Your task to perform on an android device: Show me productivity apps on the Play Store Image 0: 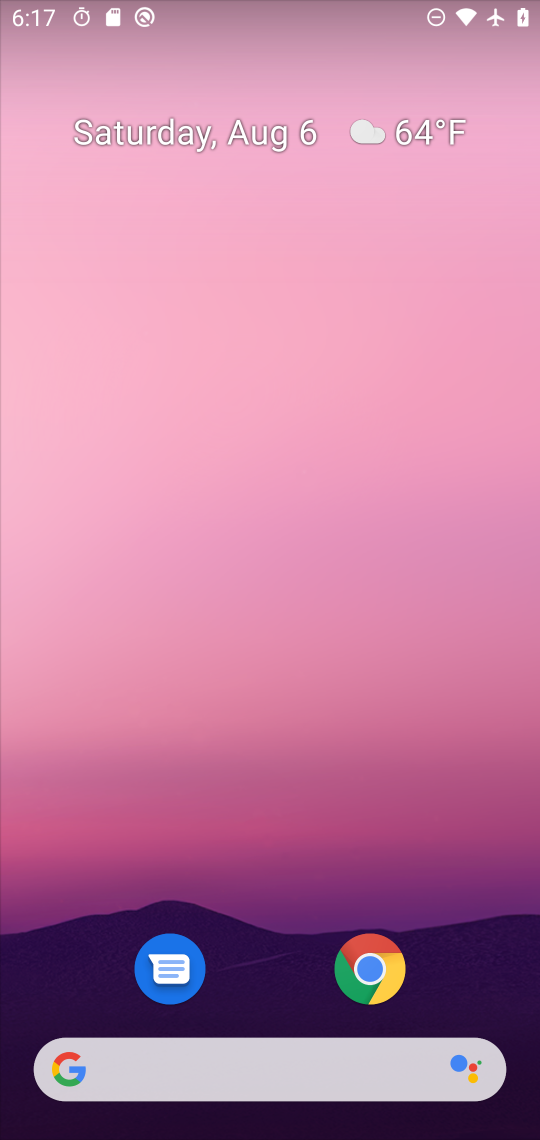
Step 0: drag from (314, 881) to (446, 106)
Your task to perform on an android device: Show me productivity apps on the Play Store Image 1: 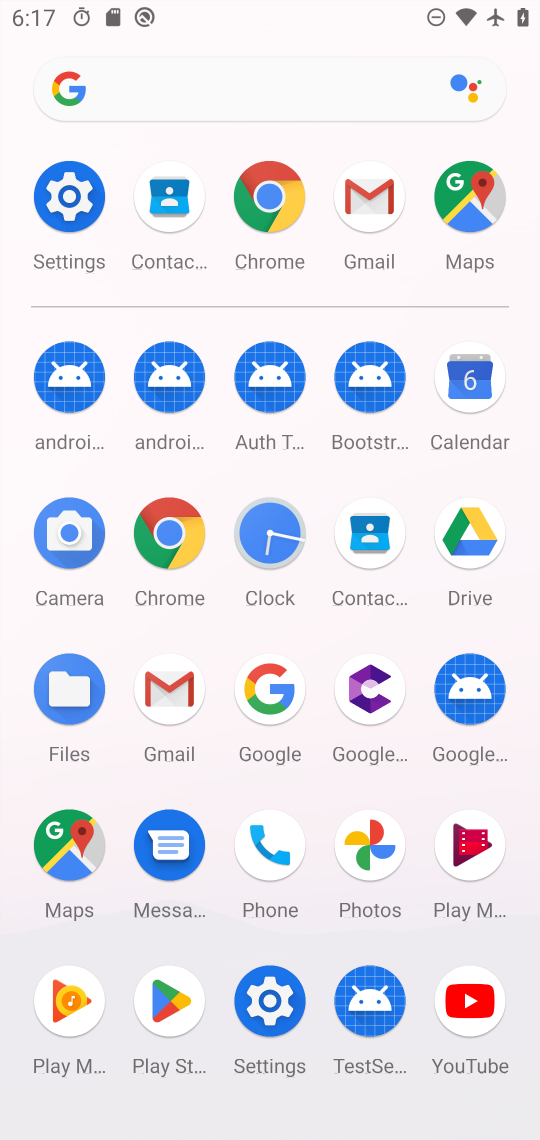
Step 1: click (170, 1002)
Your task to perform on an android device: Show me productivity apps on the Play Store Image 2: 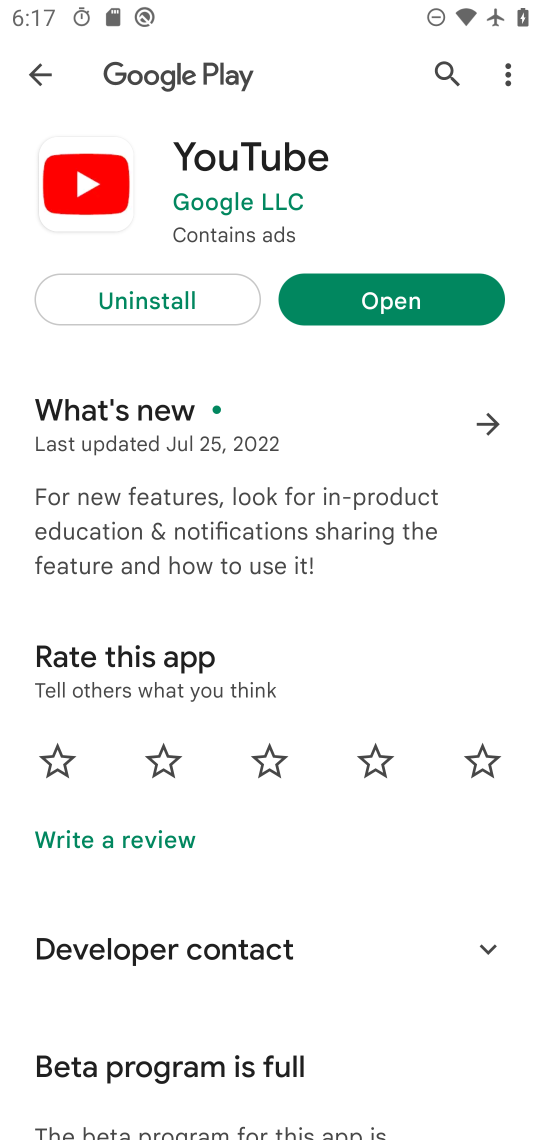
Step 2: click (54, 72)
Your task to perform on an android device: Show me productivity apps on the Play Store Image 3: 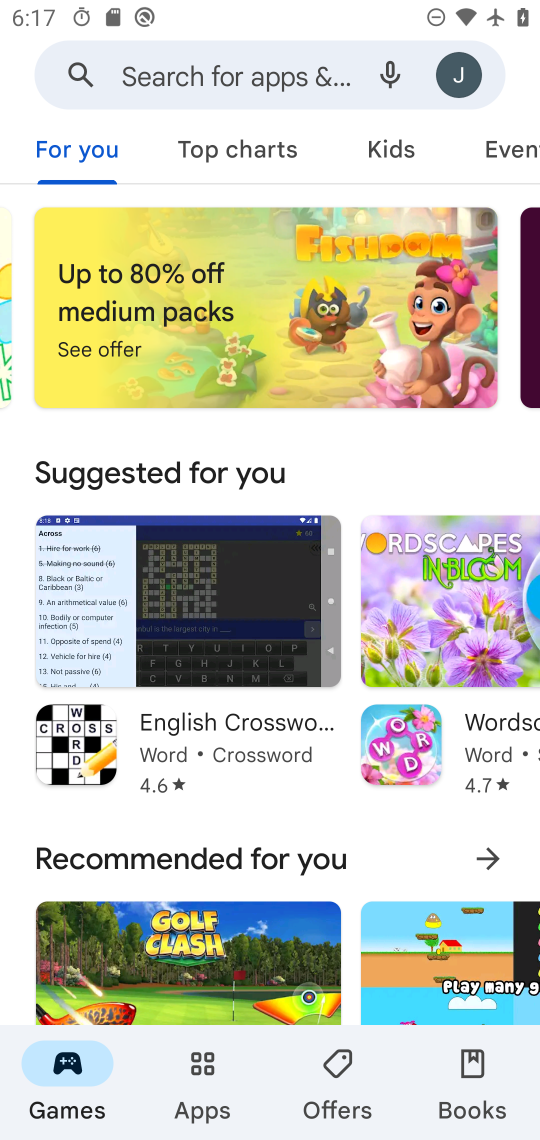
Step 3: click (213, 1063)
Your task to perform on an android device: Show me productivity apps on the Play Store Image 4: 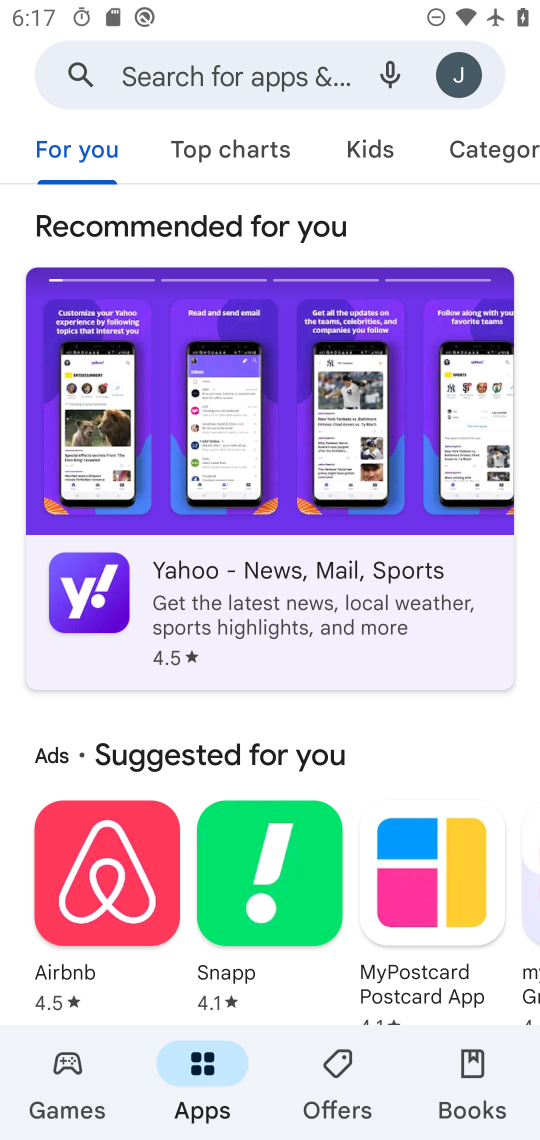
Step 4: click (475, 143)
Your task to perform on an android device: Show me productivity apps on the Play Store Image 5: 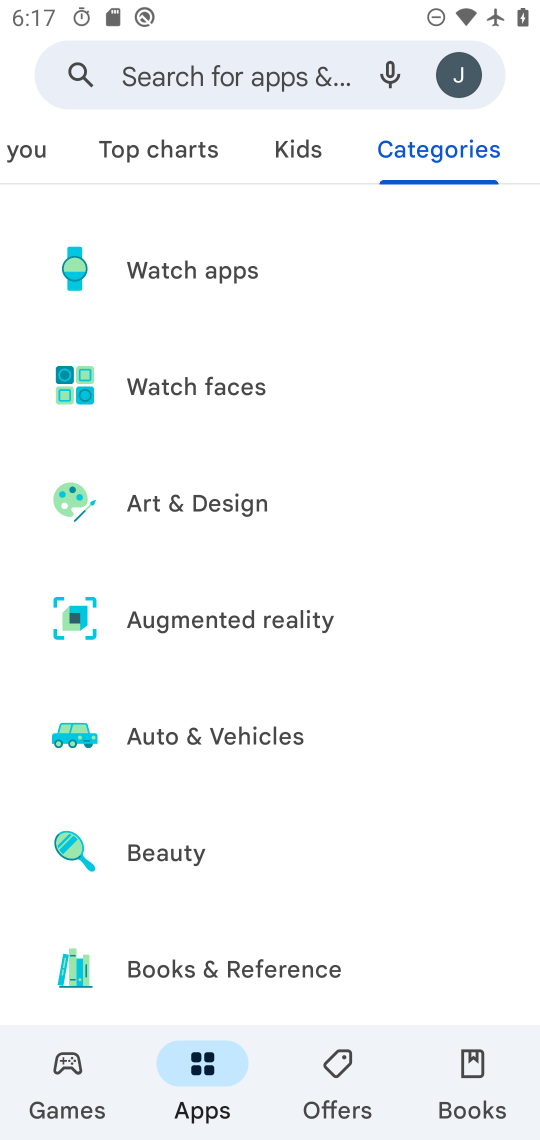
Step 5: drag from (355, 814) to (402, 129)
Your task to perform on an android device: Show me productivity apps on the Play Store Image 6: 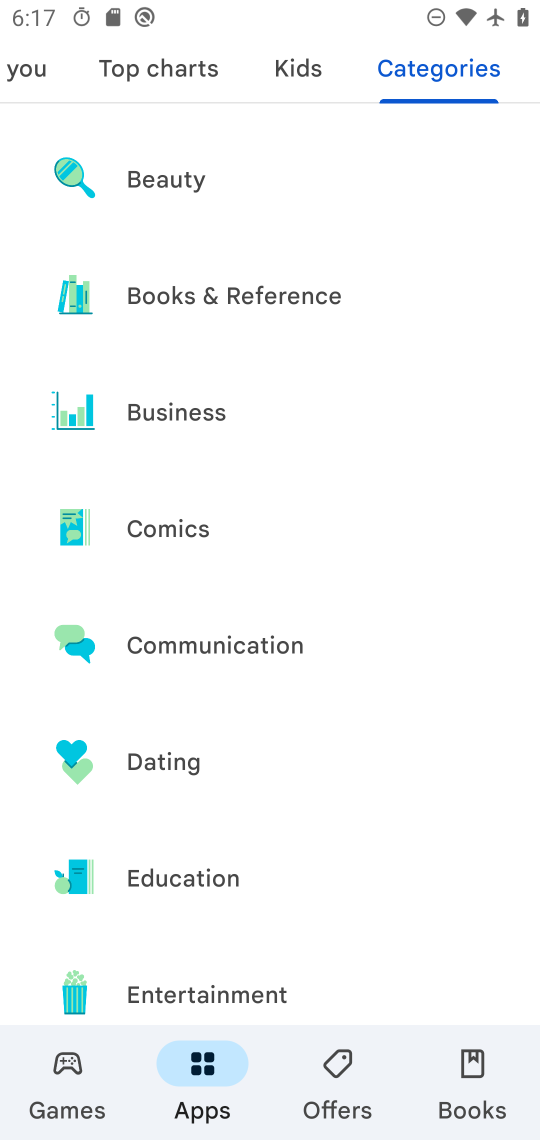
Step 6: drag from (416, 885) to (497, 269)
Your task to perform on an android device: Show me productivity apps on the Play Store Image 7: 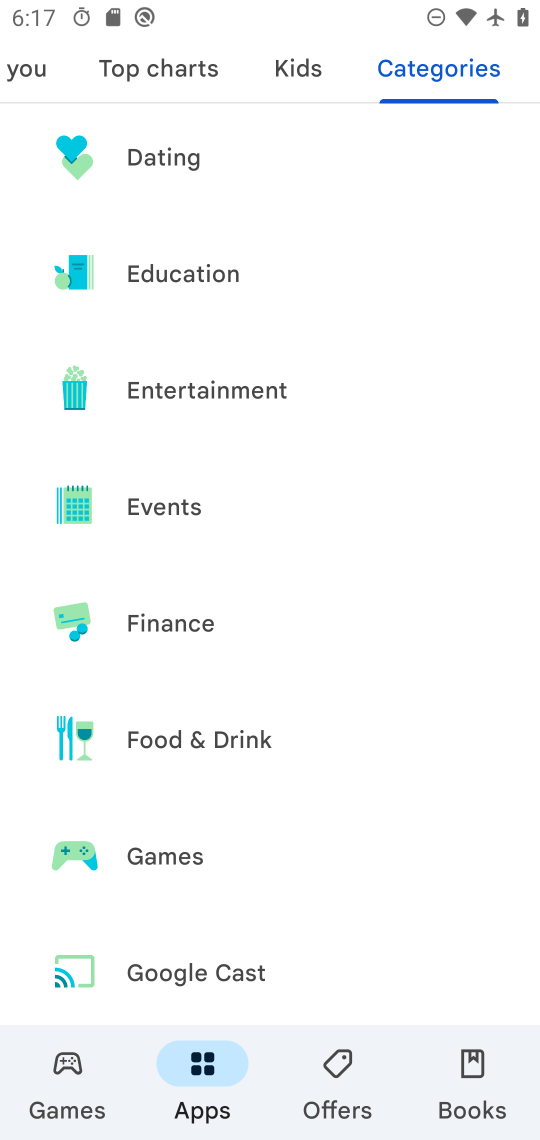
Step 7: drag from (339, 808) to (463, 304)
Your task to perform on an android device: Show me productivity apps on the Play Store Image 8: 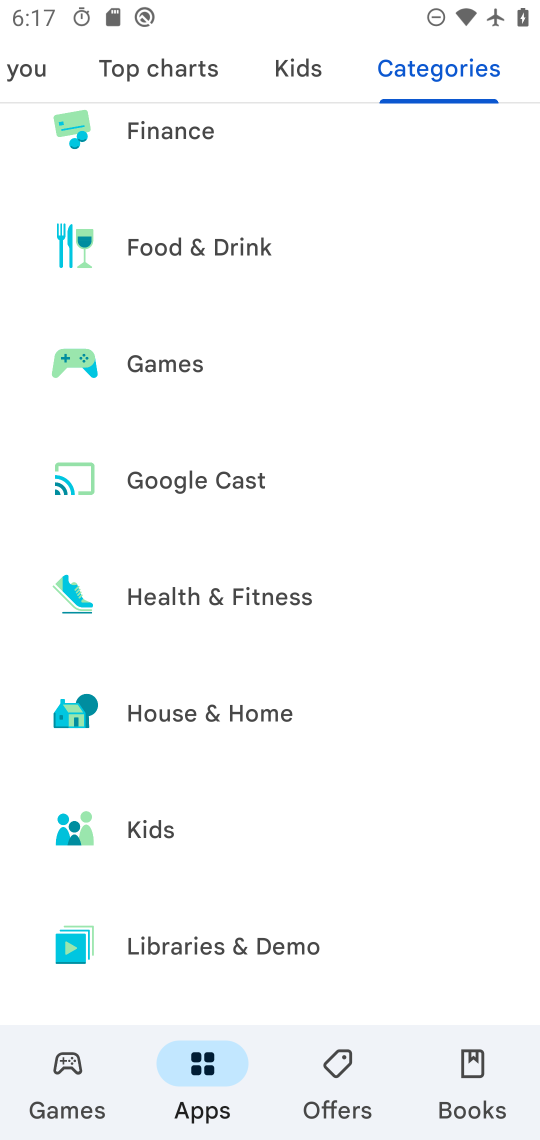
Step 8: drag from (318, 854) to (434, 355)
Your task to perform on an android device: Show me productivity apps on the Play Store Image 9: 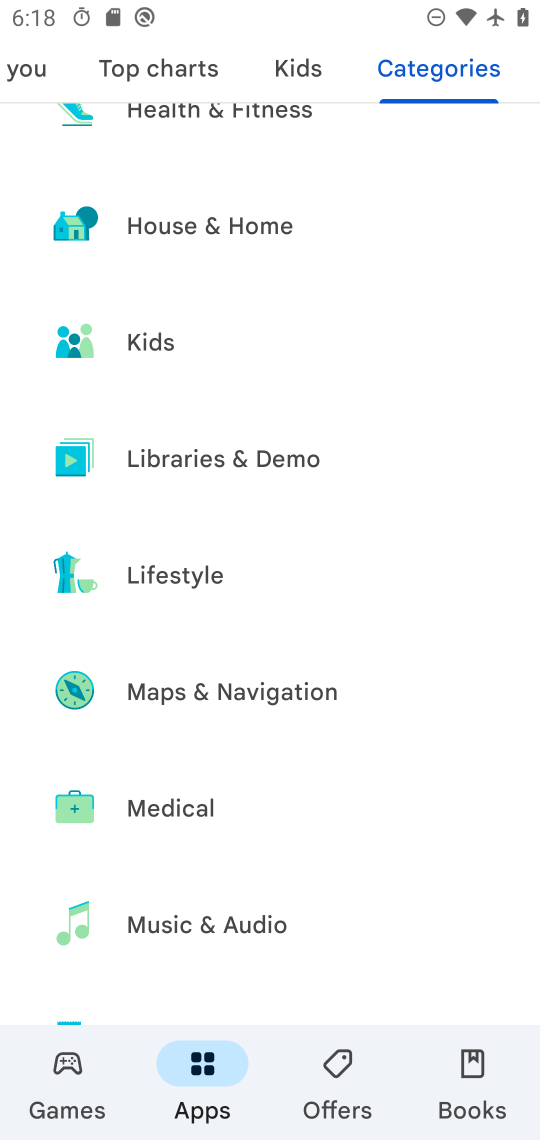
Step 9: drag from (406, 854) to (486, 489)
Your task to perform on an android device: Show me productivity apps on the Play Store Image 10: 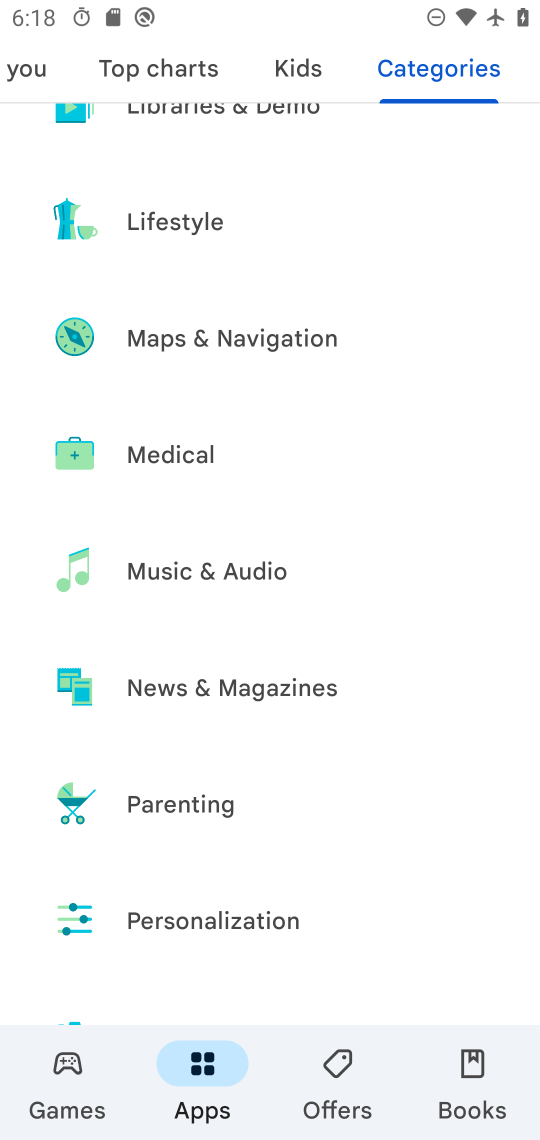
Step 10: drag from (350, 911) to (441, 551)
Your task to perform on an android device: Show me productivity apps on the Play Store Image 11: 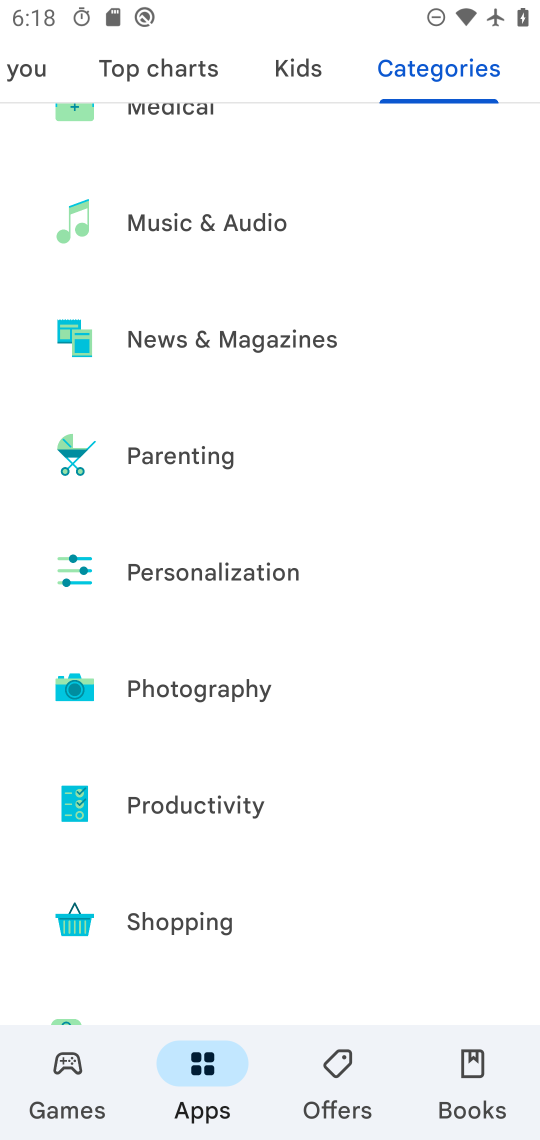
Step 11: click (226, 813)
Your task to perform on an android device: Show me productivity apps on the Play Store Image 12: 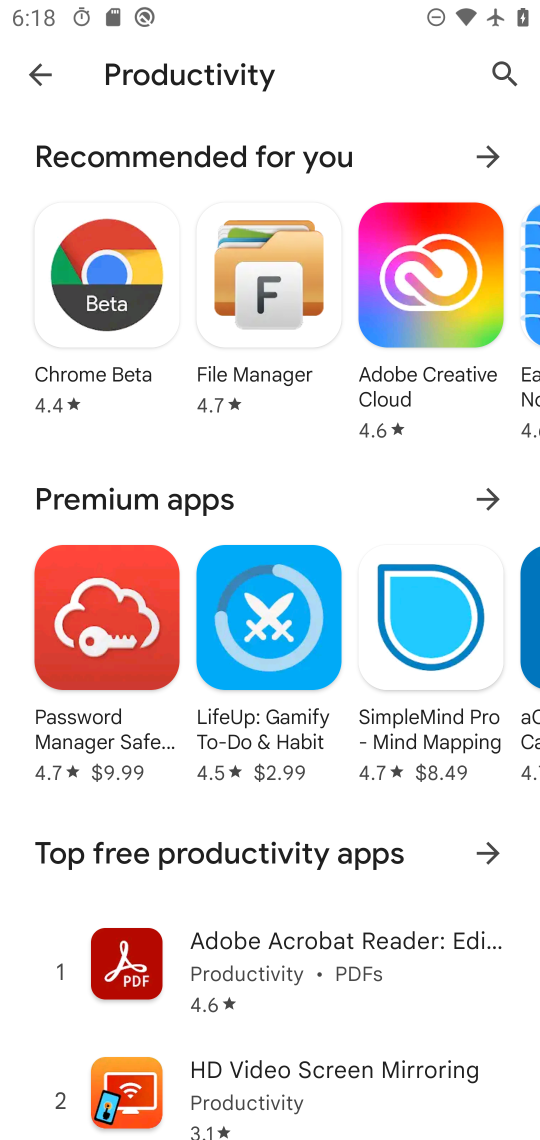
Step 12: task complete